Your task to perform on an android device: stop showing notifications on the lock screen Image 0: 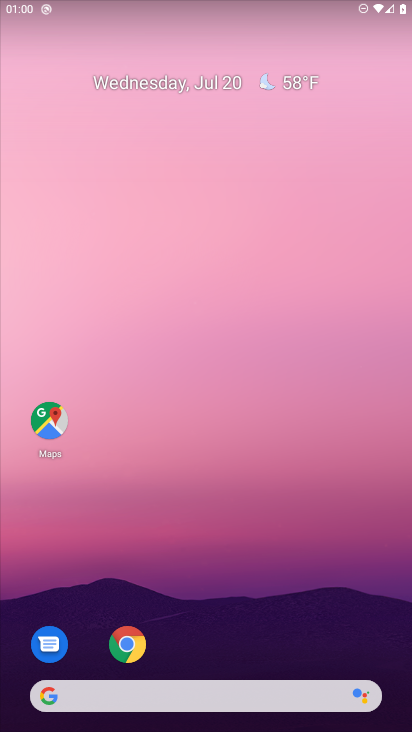
Step 0: drag from (37, 660) to (269, 84)
Your task to perform on an android device: stop showing notifications on the lock screen Image 1: 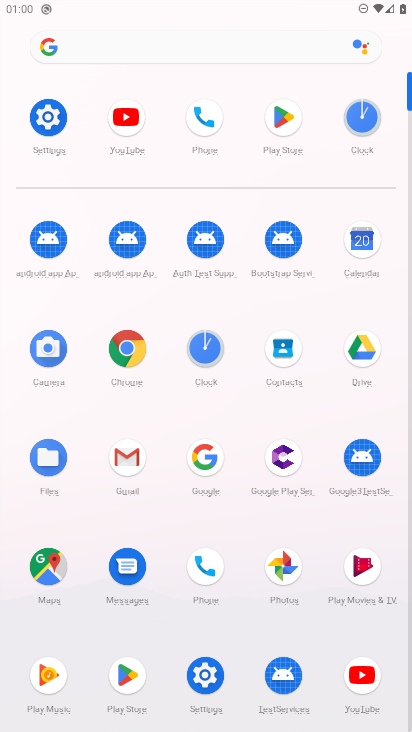
Step 1: click (200, 673)
Your task to perform on an android device: stop showing notifications on the lock screen Image 2: 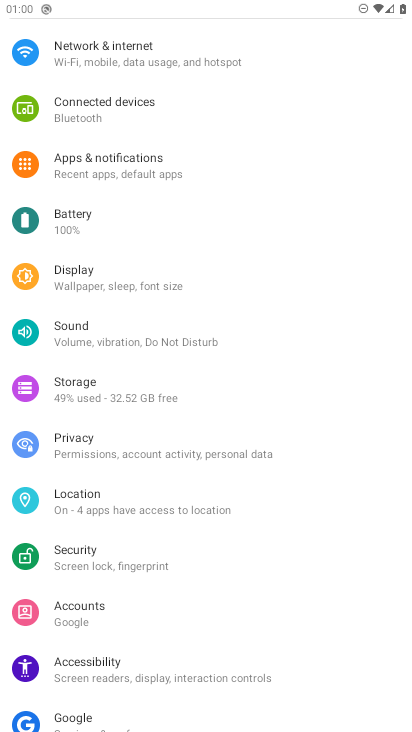
Step 2: click (133, 134)
Your task to perform on an android device: stop showing notifications on the lock screen Image 3: 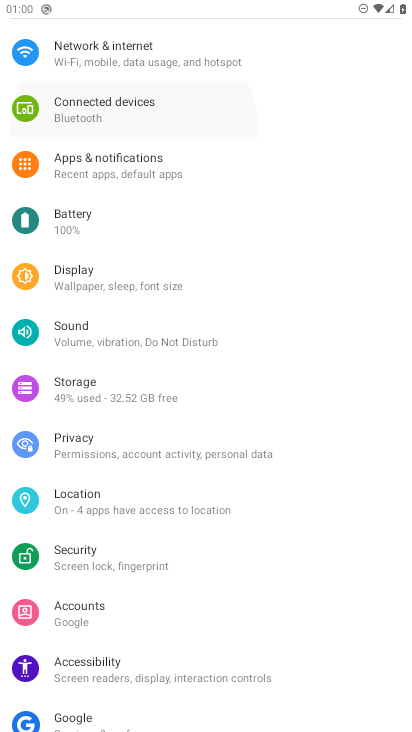
Step 3: click (140, 161)
Your task to perform on an android device: stop showing notifications on the lock screen Image 4: 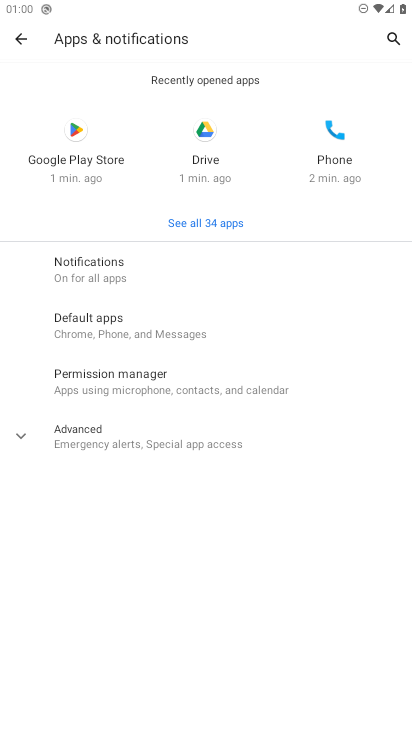
Step 4: click (97, 269)
Your task to perform on an android device: stop showing notifications on the lock screen Image 5: 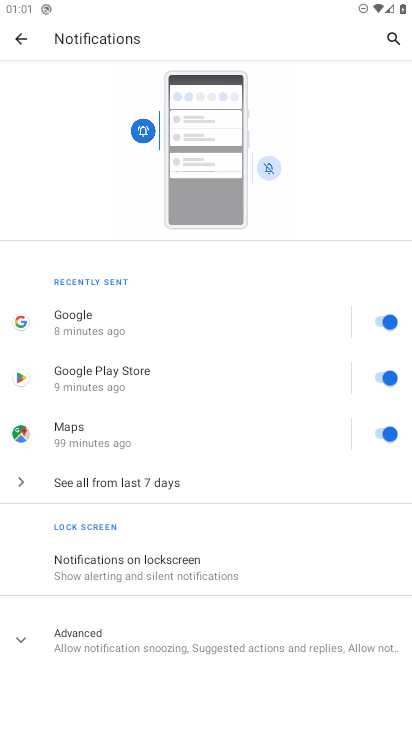
Step 5: click (135, 570)
Your task to perform on an android device: stop showing notifications on the lock screen Image 6: 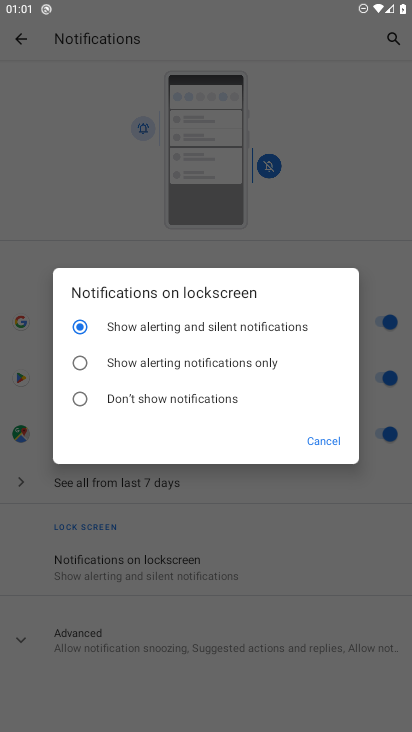
Step 6: click (85, 393)
Your task to perform on an android device: stop showing notifications on the lock screen Image 7: 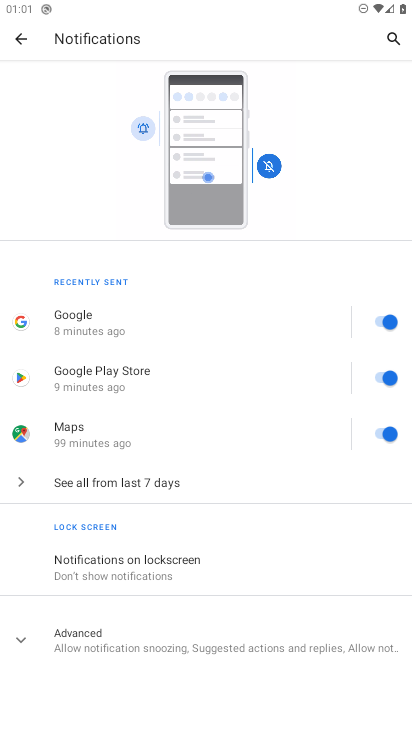
Step 7: task complete